Your task to perform on an android device: see sites visited before in the chrome app Image 0: 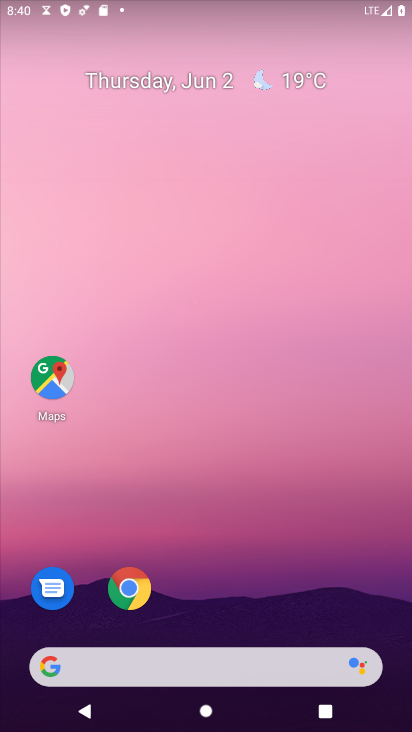
Step 0: drag from (258, 609) to (315, 81)
Your task to perform on an android device: see sites visited before in the chrome app Image 1: 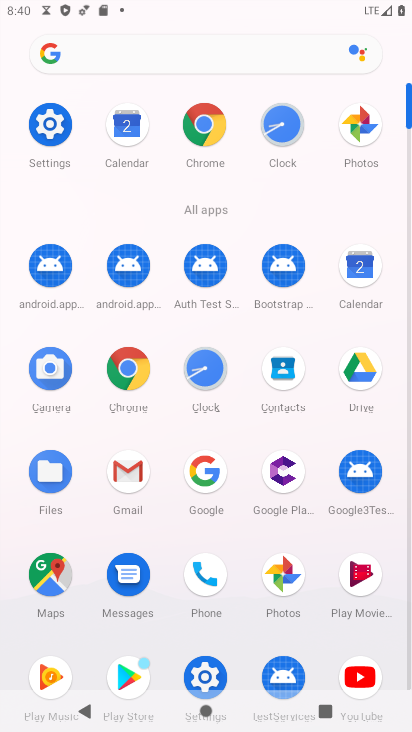
Step 1: click (202, 129)
Your task to perform on an android device: see sites visited before in the chrome app Image 2: 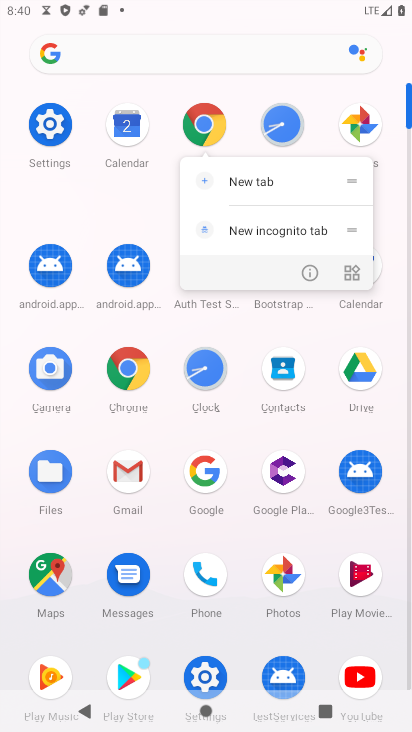
Step 2: click (210, 120)
Your task to perform on an android device: see sites visited before in the chrome app Image 3: 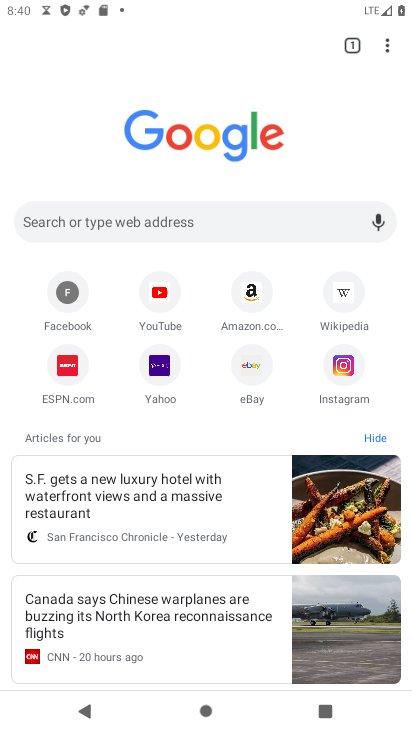
Step 3: click (392, 44)
Your task to perform on an android device: see sites visited before in the chrome app Image 4: 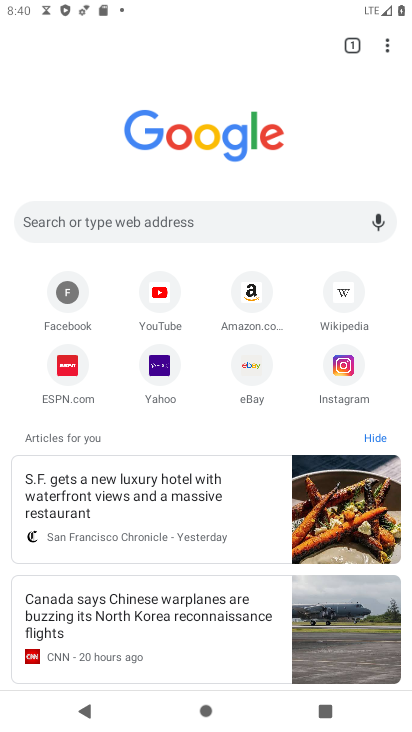
Step 4: task complete